Your task to perform on an android device: Go to Amazon Image 0: 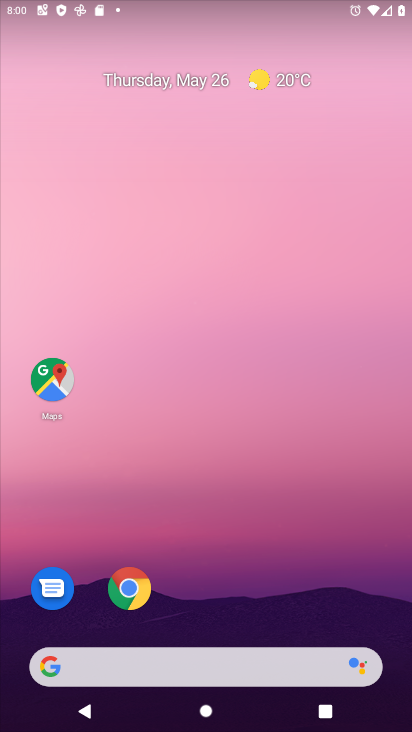
Step 0: drag from (393, 632) to (229, 119)
Your task to perform on an android device: Go to Amazon Image 1: 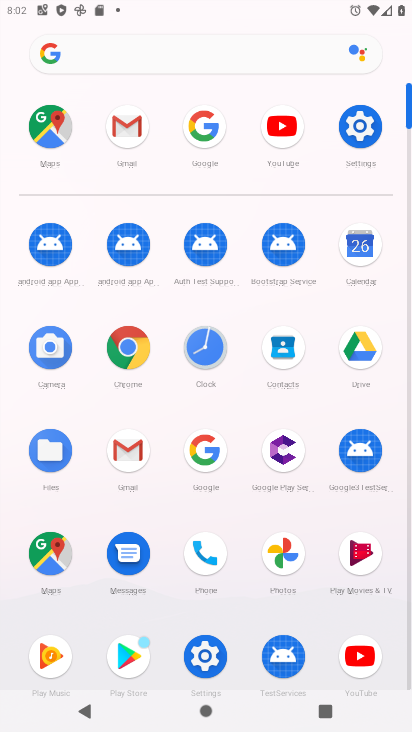
Step 1: click (213, 457)
Your task to perform on an android device: Go to Amazon Image 2: 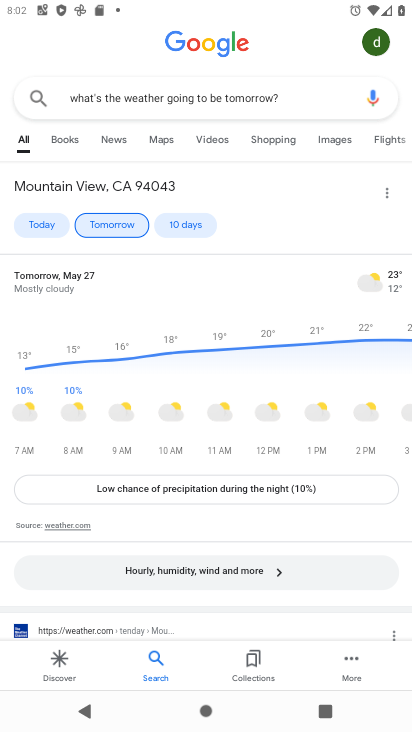
Step 2: press back button
Your task to perform on an android device: Go to Amazon Image 3: 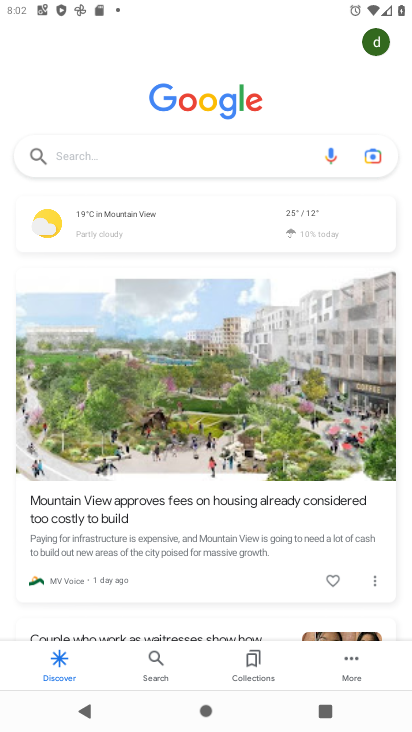
Step 3: click (160, 157)
Your task to perform on an android device: Go to Amazon Image 4: 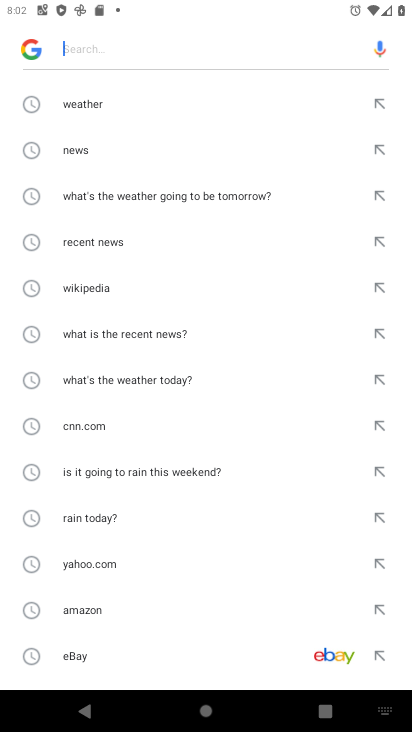
Step 4: click (119, 597)
Your task to perform on an android device: Go to Amazon Image 5: 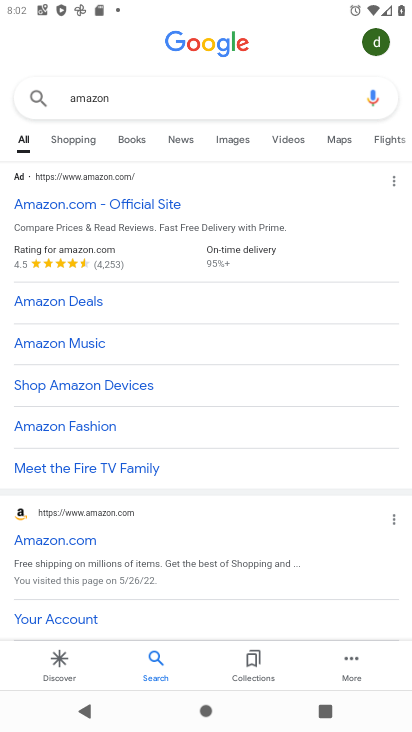
Step 5: task complete